Your task to perform on an android device: turn on showing notifications on the lock screen Image 0: 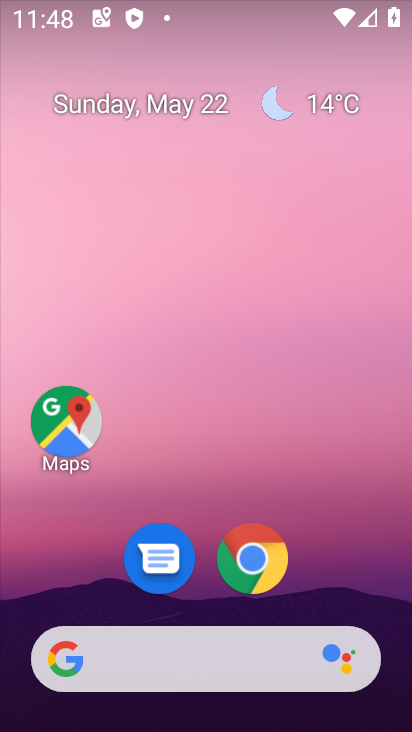
Step 0: drag from (352, 579) to (346, 8)
Your task to perform on an android device: turn on showing notifications on the lock screen Image 1: 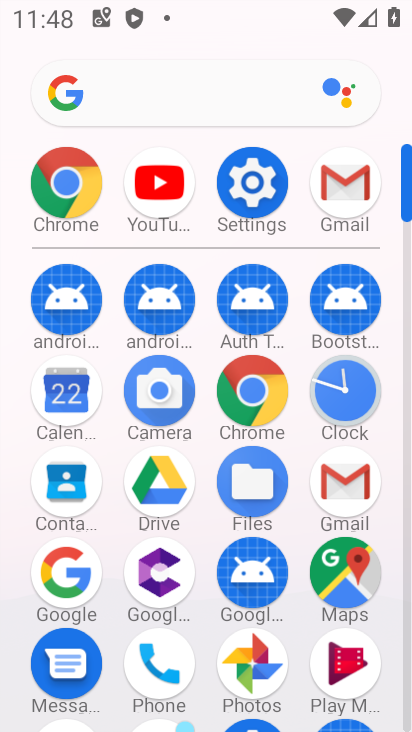
Step 1: click (252, 186)
Your task to perform on an android device: turn on showing notifications on the lock screen Image 2: 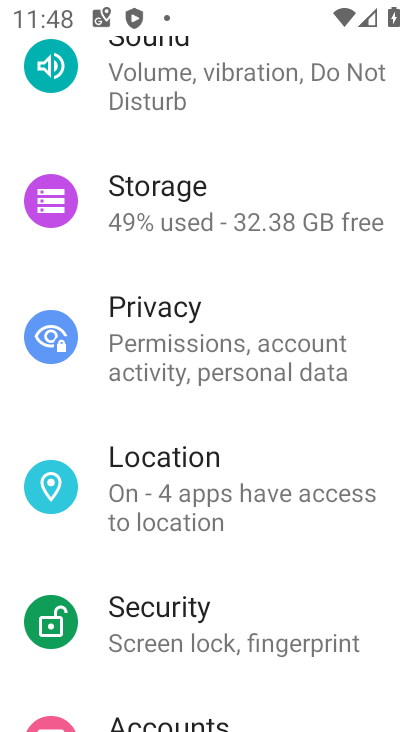
Step 2: drag from (292, 172) to (298, 503)
Your task to perform on an android device: turn on showing notifications on the lock screen Image 3: 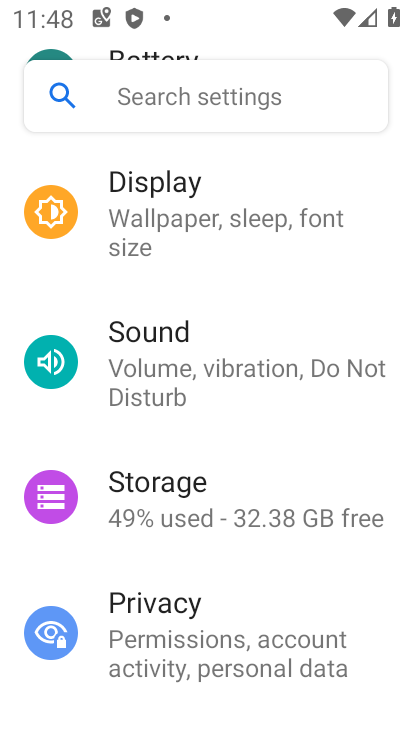
Step 3: drag from (313, 247) to (295, 528)
Your task to perform on an android device: turn on showing notifications on the lock screen Image 4: 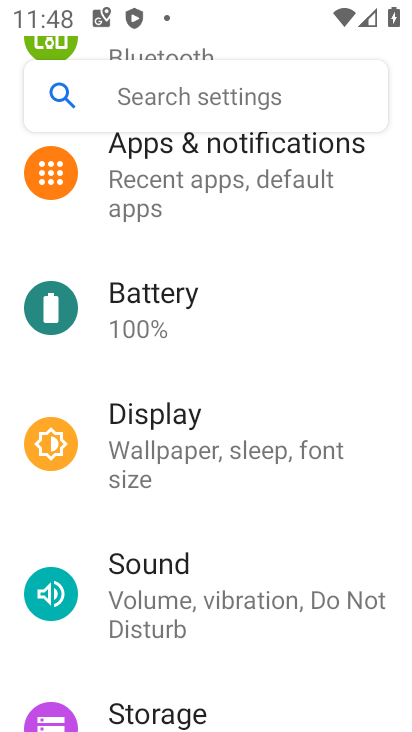
Step 4: drag from (325, 224) to (329, 436)
Your task to perform on an android device: turn on showing notifications on the lock screen Image 5: 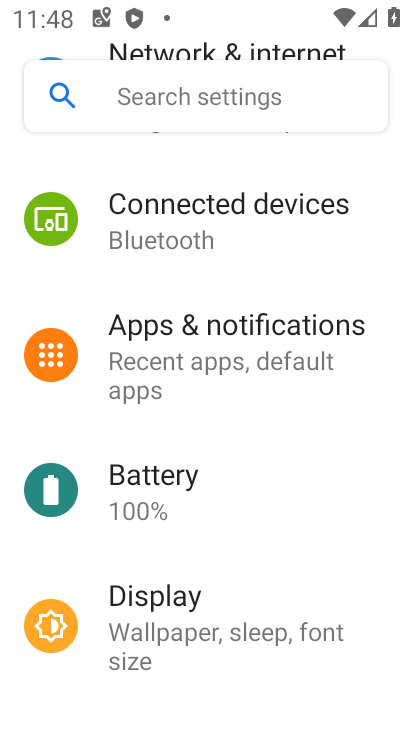
Step 5: click (234, 344)
Your task to perform on an android device: turn on showing notifications on the lock screen Image 6: 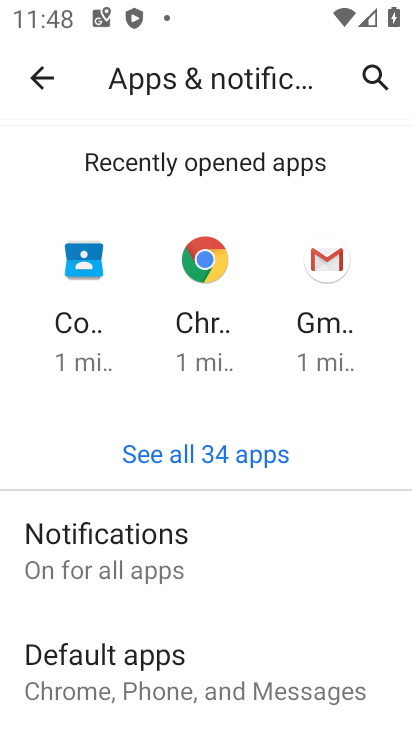
Step 6: click (129, 546)
Your task to perform on an android device: turn on showing notifications on the lock screen Image 7: 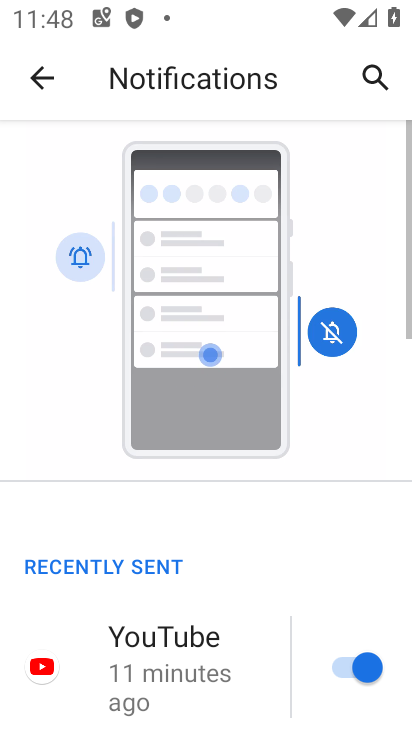
Step 7: drag from (228, 522) to (192, 70)
Your task to perform on an android device: turn on showing notifications on the lock screen Image 8: 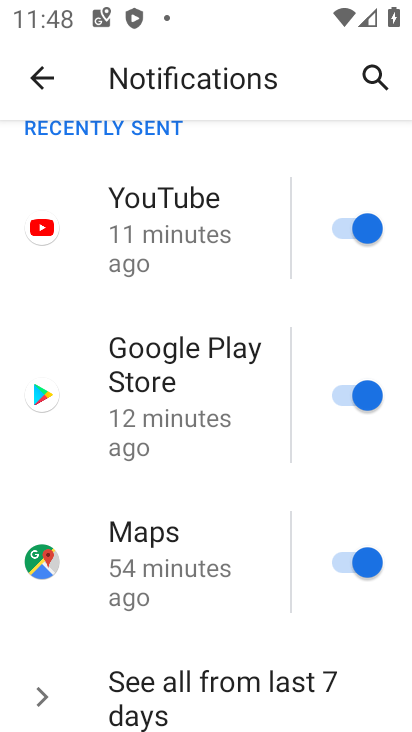
Step 8: drag from (144, 515) to (153, 66)
Your task to perform on an android device: turn on showing notifications on the lock screen Image 9: 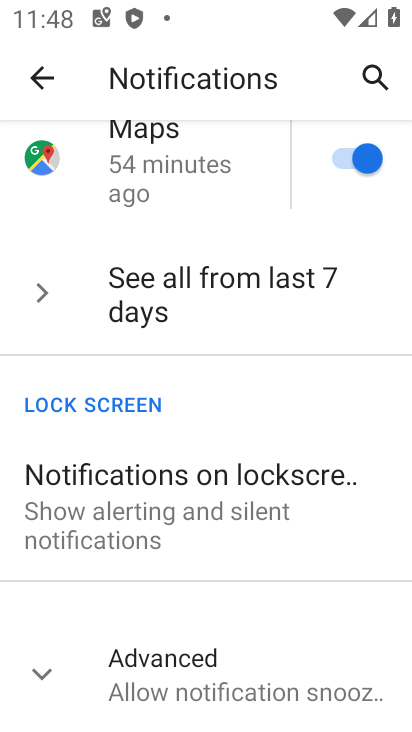
Step 9: click (95, 521)
Your task to perform on an android device: turn on showing notifications on the lock screen Image 10: 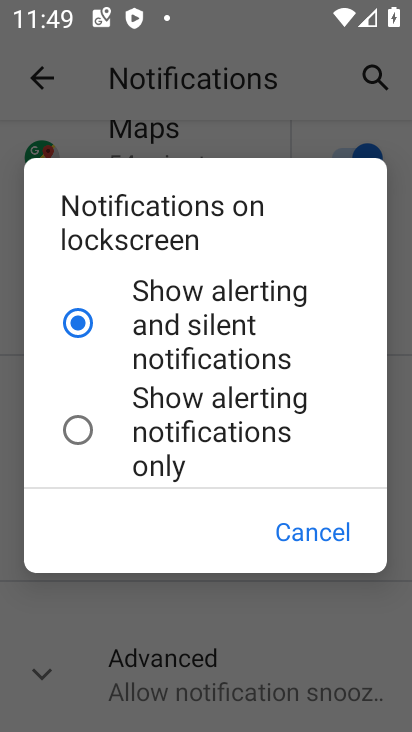
Step 10: task complete